Your task to perform on an android device: Search for a new nail polish Image 0: 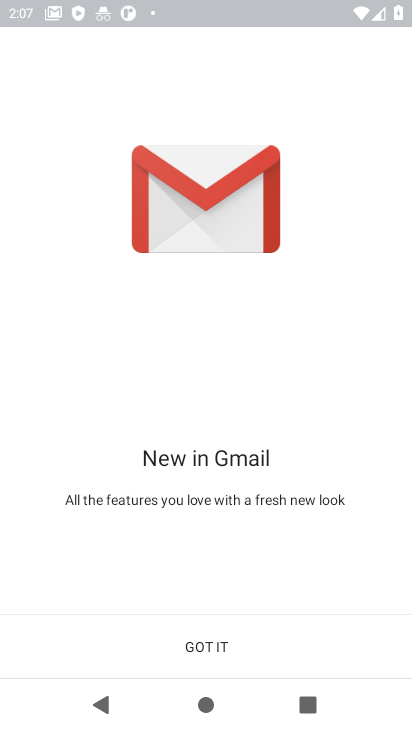
Step 0: press home button
Your task to perform on an android device: Search for a new nail polish Image 1: 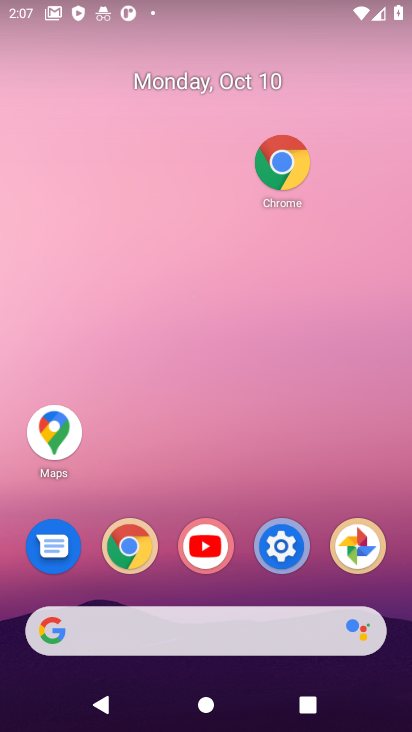
Step 1: click (120, 546)
Your task to perform on an android device: Search for a new nail polish Image 2: 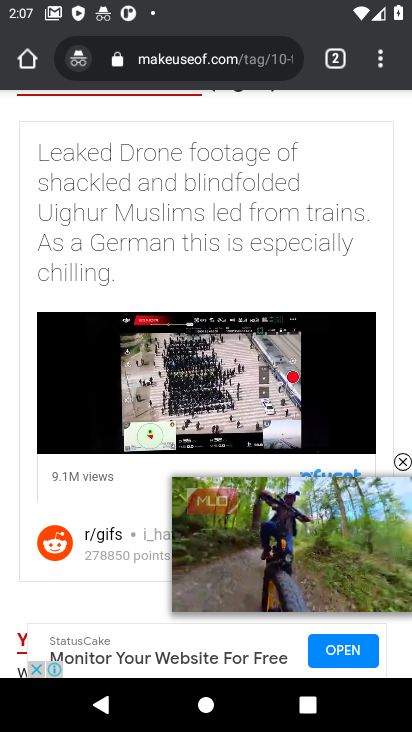
Step 2: click (141, 64)
Your task to perform on an android device: Search for a new nail polish Image 3: 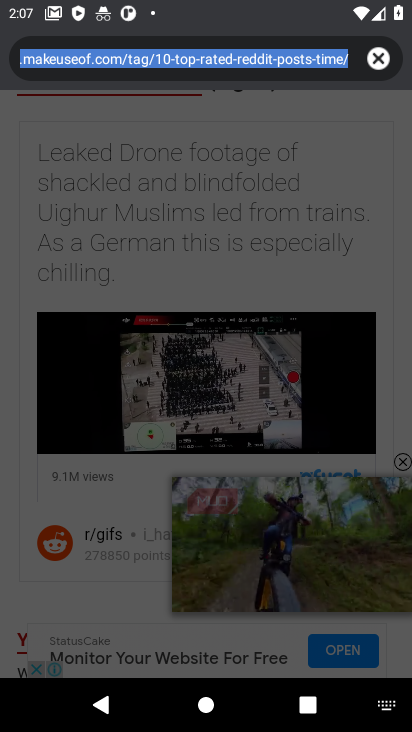
Step 3: click (379, 63)
Your task to perform on an android device: Search for a new nail polish Image 4: 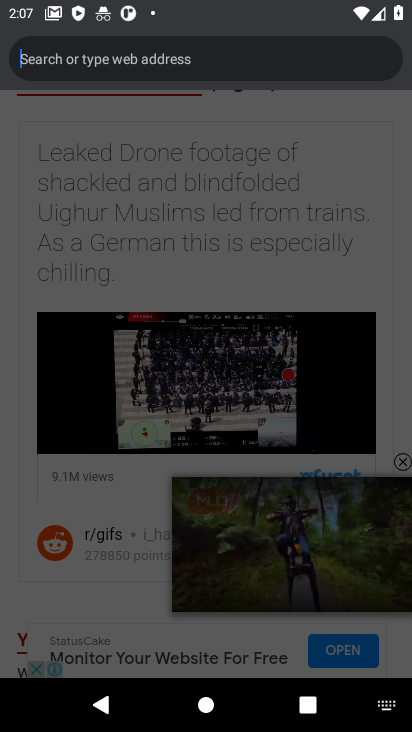
Step 4: type "new nail polish"
Your task to perform on an android device: Search for a new nail polish Image 5: 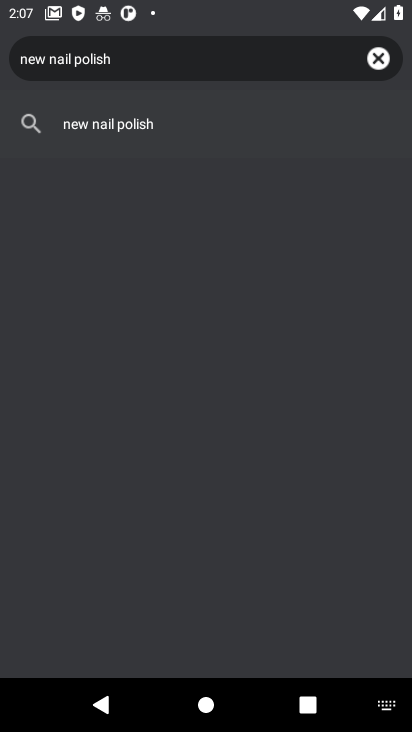
Step 5: click (141, 139)
Your task to perform on an android device: Search for a new nail polish Image 6: 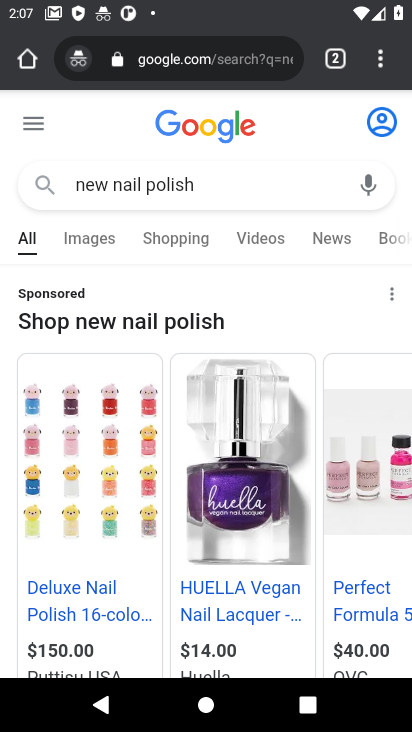
Step 6: click (206, 588)
Your task to perform on an android device: Search for a new nail polish Image 7: 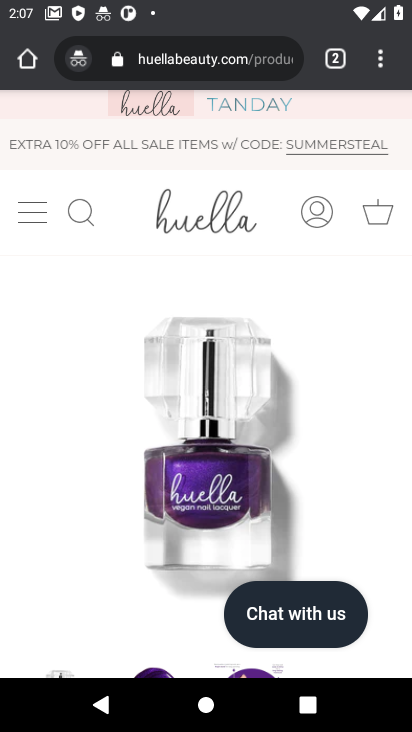
Step 7: task complete